Your task to perform on an android device: uninstall "Google Play Games" Image 0: 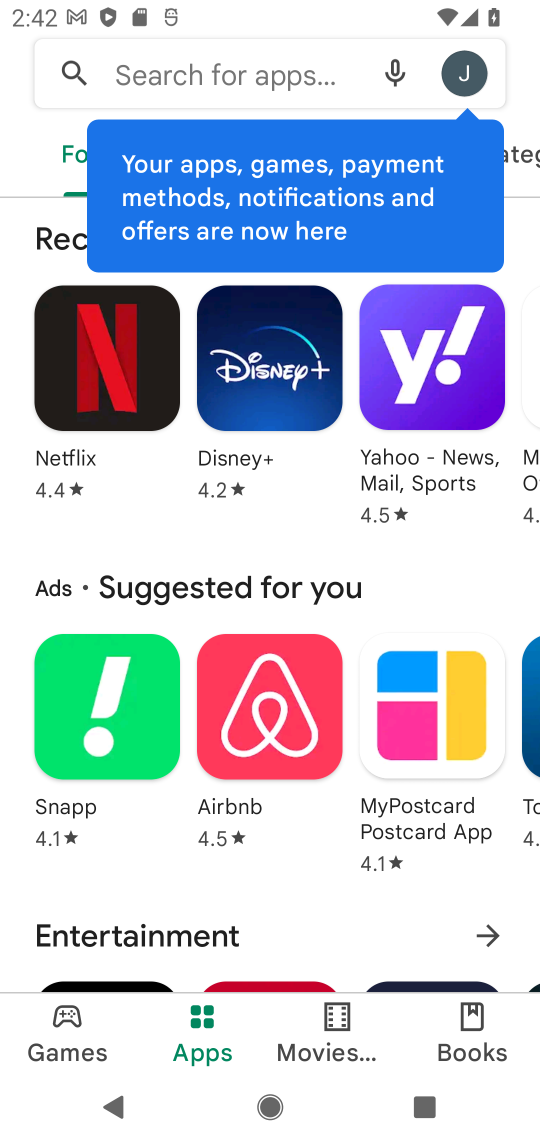
Step 0: press home button
Your task to perform on an android device: uninstall "Google Play Games" Image 1: 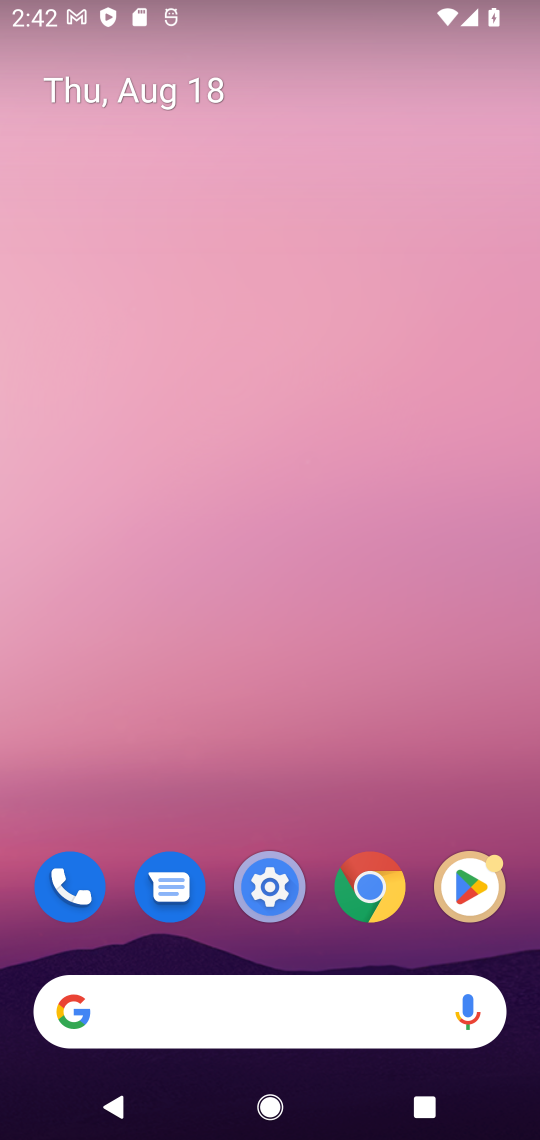
Step 1: click (472, 885)
Your task to perform on an android device: uninstall "Google Play Games" Image 2: 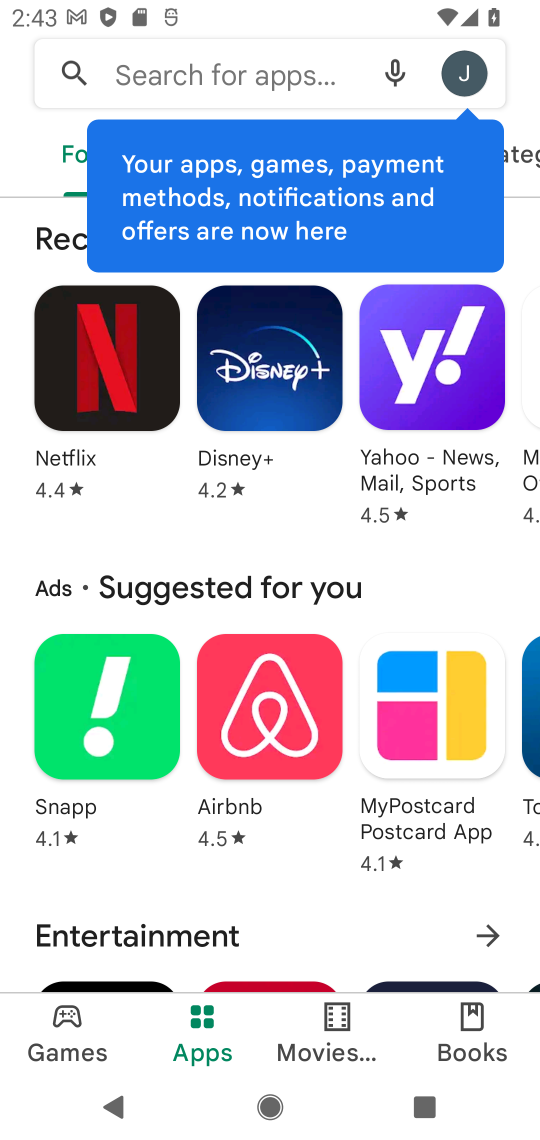
Step 2: click (201, 78)
Your task to perform on an android device: uninstall "Google Play Games" Image 3: 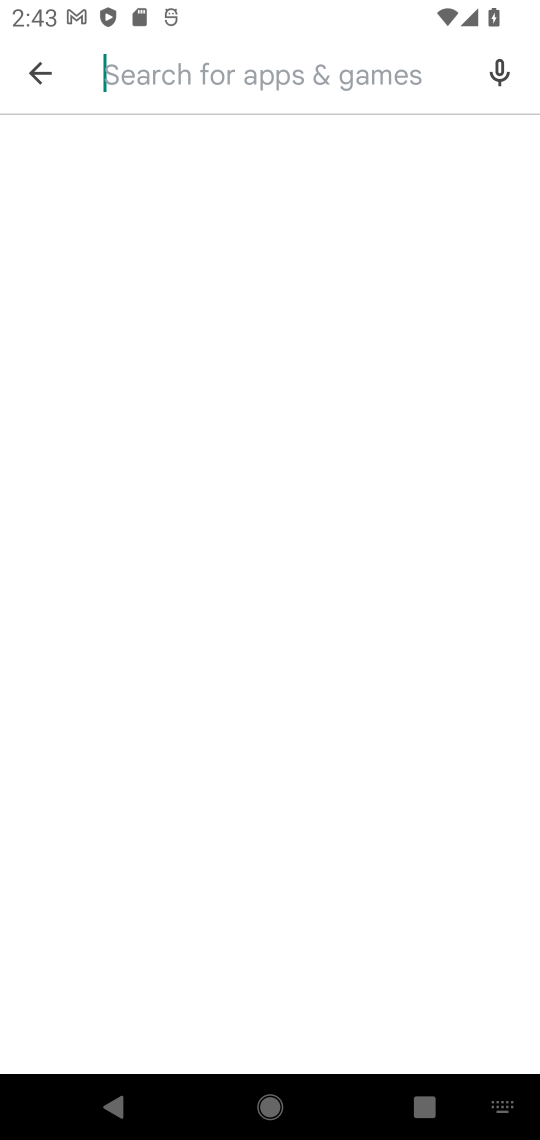
Step 3: type "Google Play Games"
Your task to perform on an android device: uninstall "Google Play Games" Image 4: 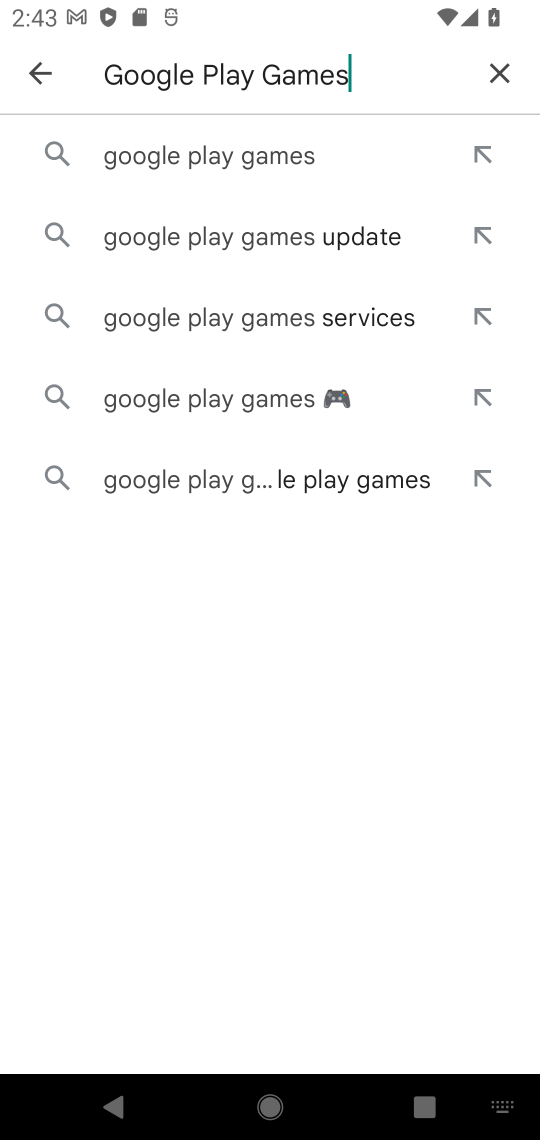
Step 4: click (242, 165)
Your task to perform on an android device: uninstall "Google Play Games" Image 5: 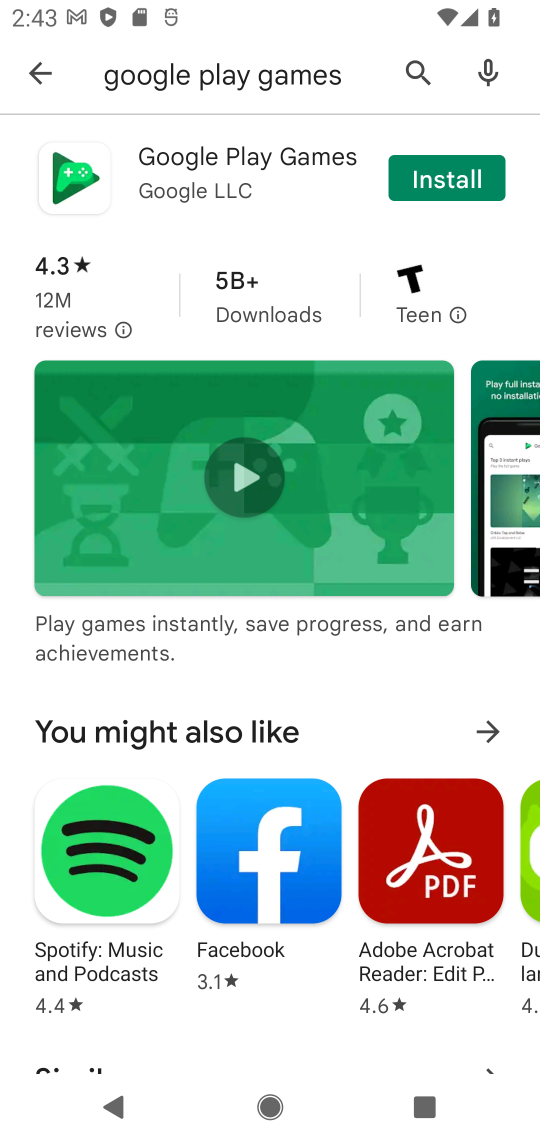
Step 5: task complete